Your task to perform on an android device: Go to network settings Image 0: 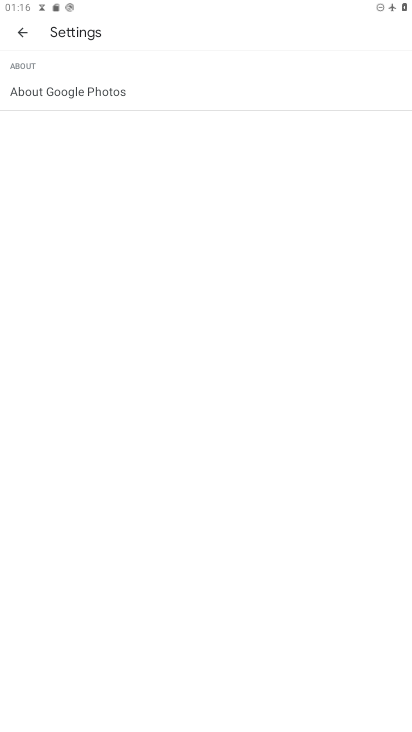
Step 0: press home button
Your task to perform on an android device: Go to network settings Image 1: 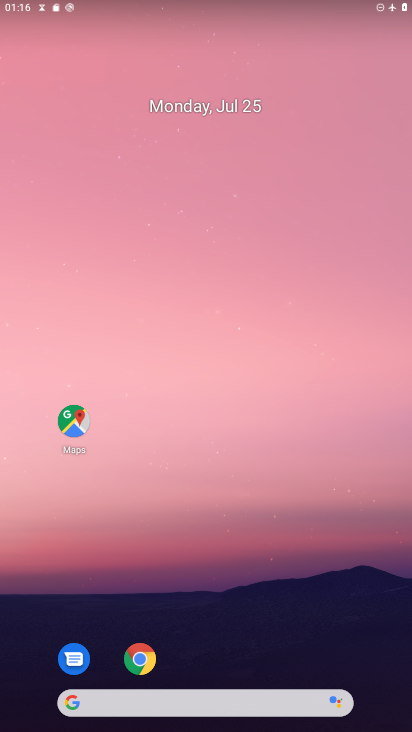
Step 1: drag from (280, 626) to (278, 142)
Your task to perform on an android device: Go to network settings Image 2: 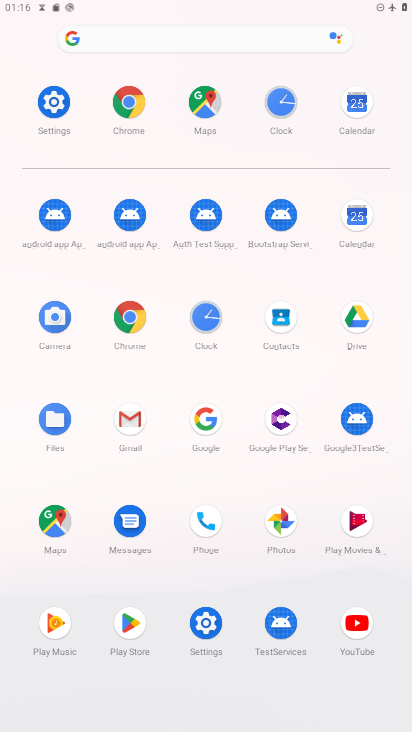
Step 2: click (53, 97)
Your task to perform on an android device: Go to network settings Image 3: 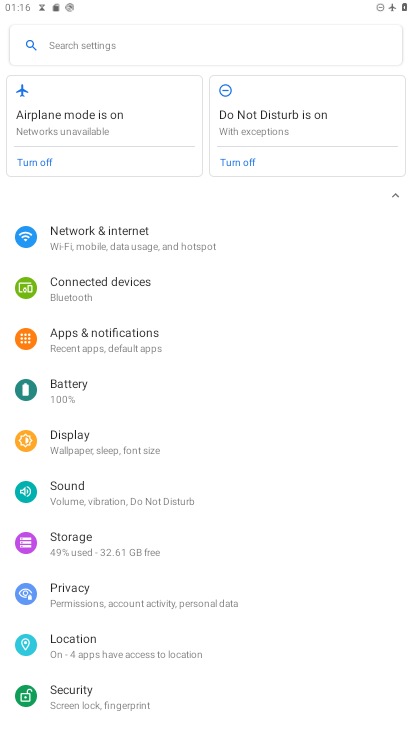
Step 3: click (160, 233)
Your task to perform on an android device: Go to network settings Image 4: 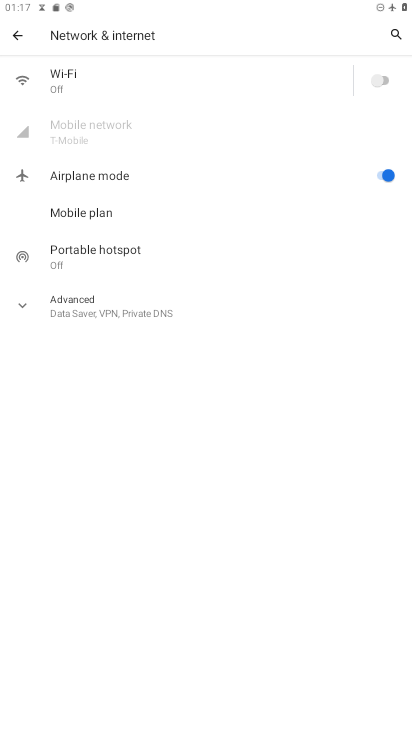
Step 4: task complete